Your task to perform on an android device: turn off priority inbox in the gmail app Image 0: 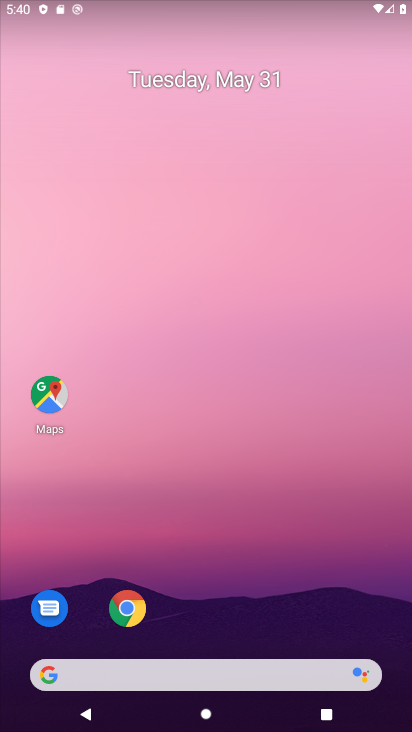
Step 0: drag from (210, 544) to (210, 237)
Your task to perform on an android device: turn off priority inbox in the gmail app Image 1: 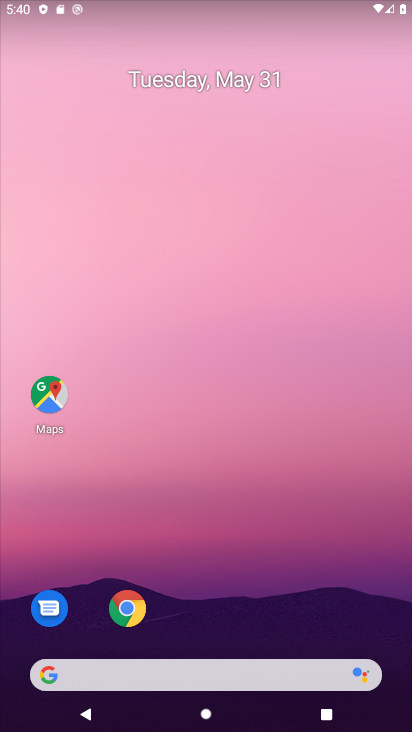
Step 1: drag from (184, 552) to (181, 175)
Your task to perform on an android device: turn off priority inbox in the gmail app Image 2: 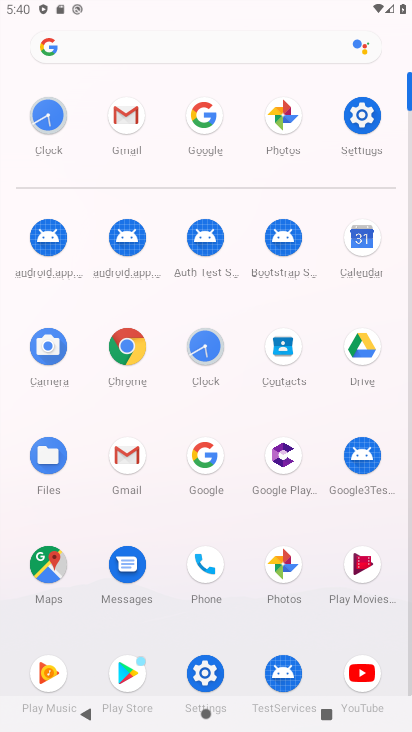
Step 2: click (127, 464)
Your task to perform on an android device: turn off priority inbox in the gmail app Image 3: 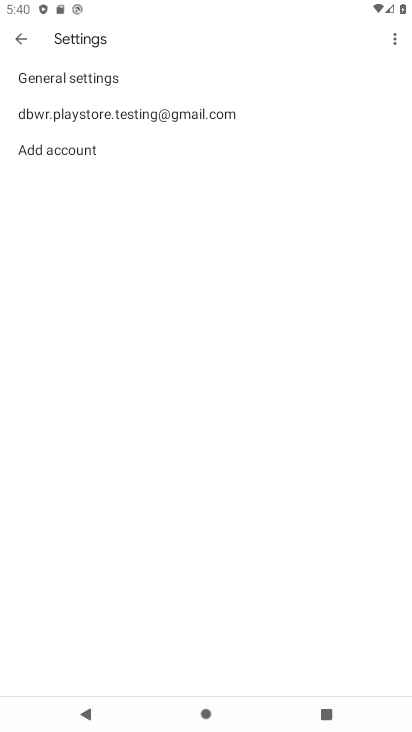
Step 3: click (118, 116)
Your task to perform on an android device: turn off priority inbox in the gmail app Image 4: 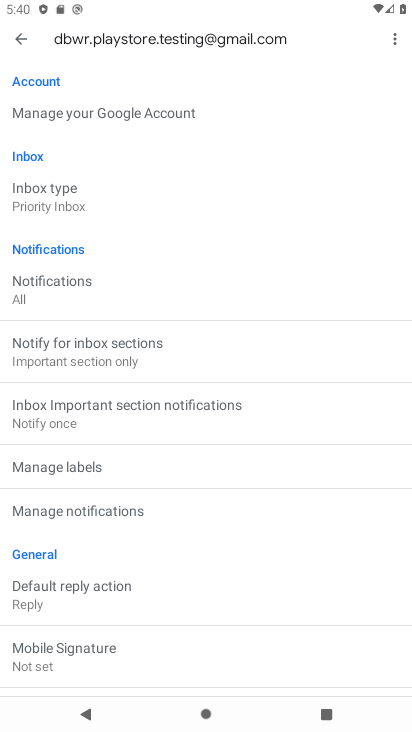
Step 4: click (57, 202)
Your task to perform on an android device: turn off priority inbox in the gmail app Image 5: 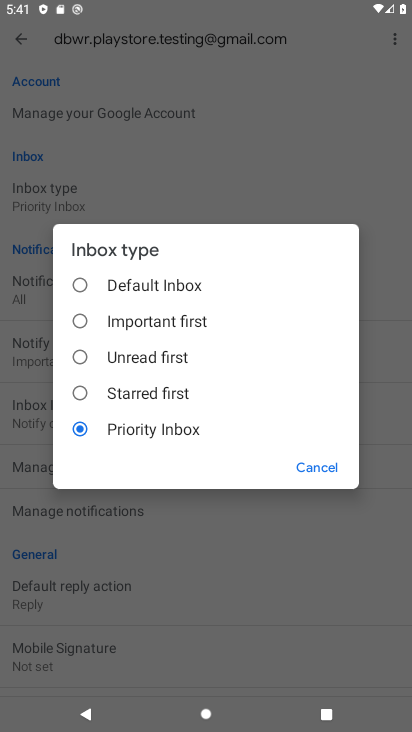
Step 5: click (125, 282)
Your task to perform on an android device: turn off priority inbox in the gmail app Image 6: 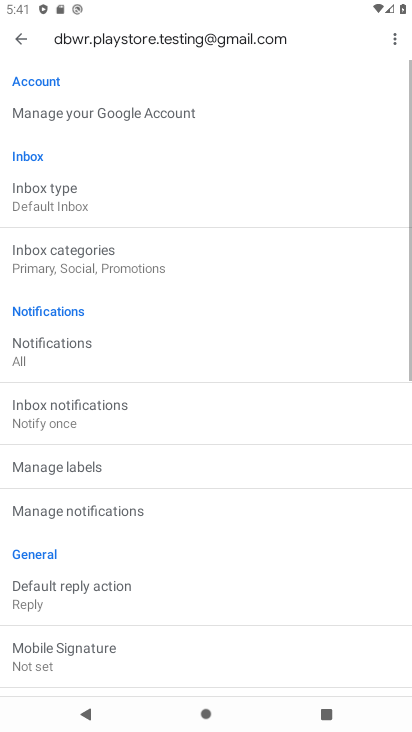
Step 6: task complete